Your task to perform on an android device: Open the calendar app, open the side menu, and click the "Day" option Image 0: 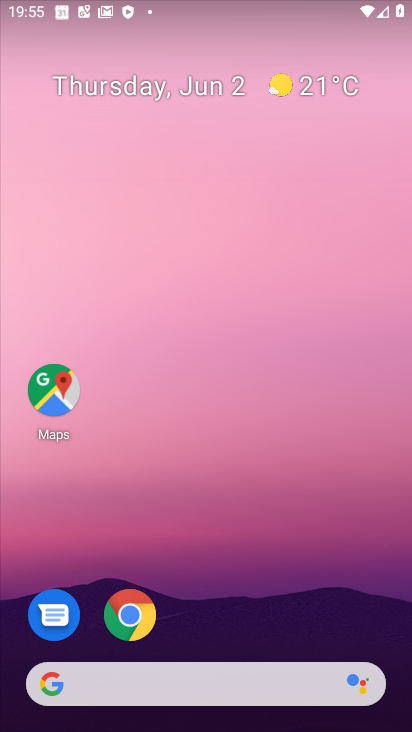
Step 0: drag from (277, 625) to (298, 202)
Your task to perform on an android device: Open the calendar app, open the side menu, and click the "Day" option Image 1: 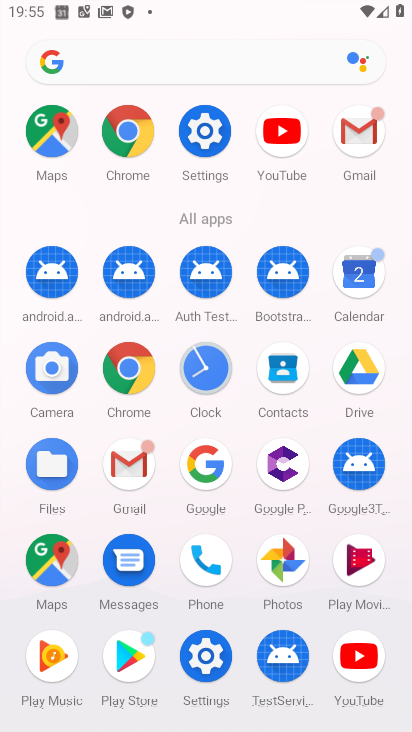
Step 1: click (222, 136)
Your task to perform on an android device: Open the calendar app, open the side menu, and click the "Day" option Image 2: 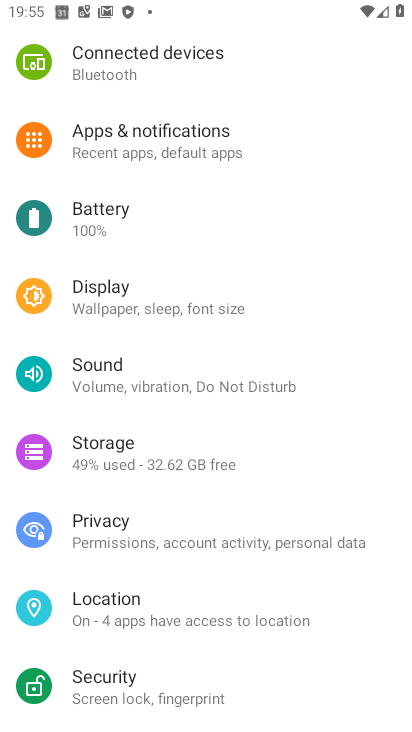
Step 2: press home button
Your task to perform on an android device: Open the calendar app, open the side menu, and click the "Day" option Image 3: 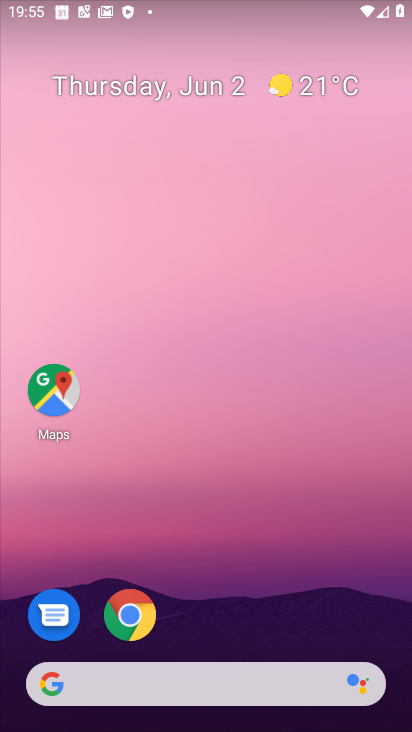
Step 3: drag from (292, 620) to (289, 240)
Your task to perform on an android device: Open the calendar app, open the side menu, and click the "Day" option Image 4: 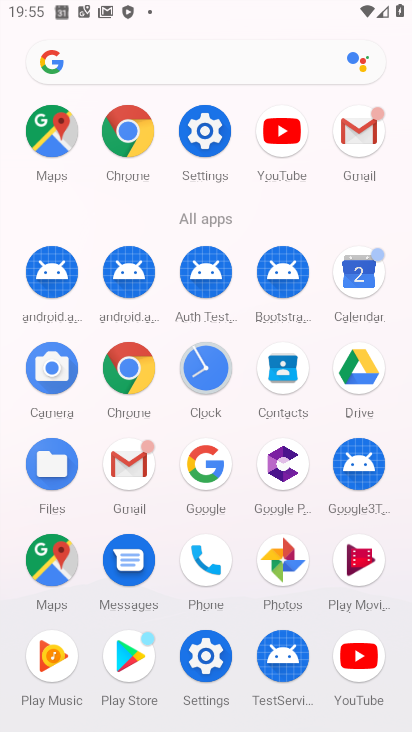
Step 4: click (220, 166)
Your task to perform on an android device: Open the calendar app, open the side menu, and click the "Day" option Image 5: 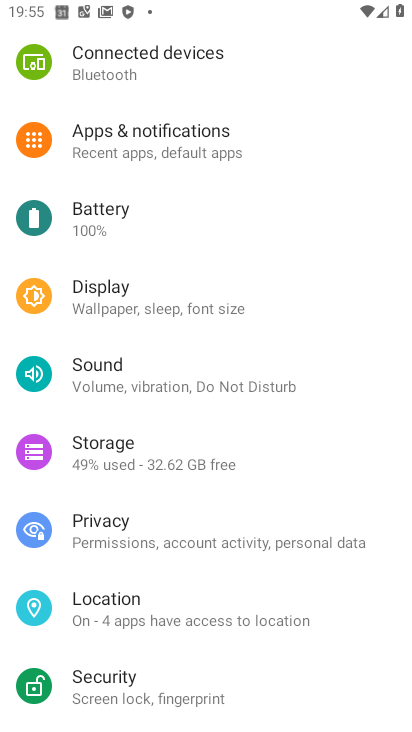
Step 5: press home button
Your task to perform on an android device: Open the calendar app, open the side menu, and click the "Day" option Image 6: 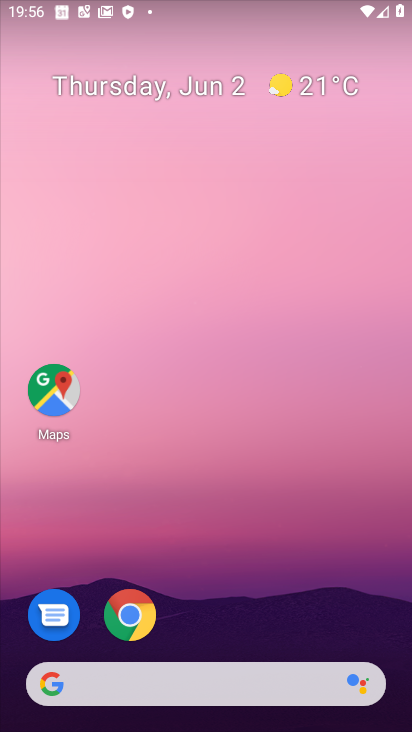
Step 6: drag from (248, 585) to (298, 168)
Your task to perform on an android device: Open the calendar app, open the side menu, and click the "Day" option Image 7: 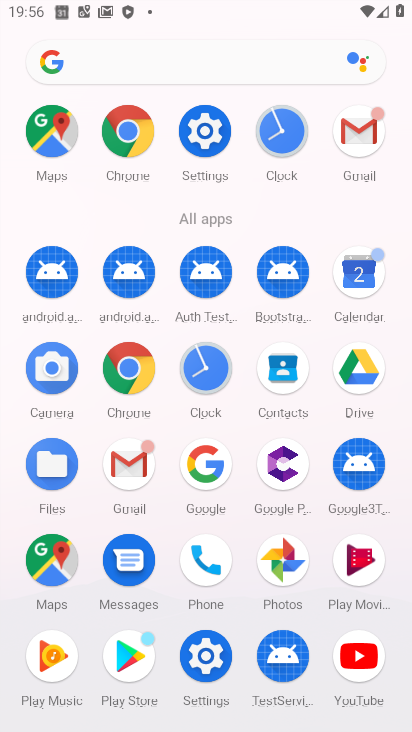
Step 7: click (375, 283)
Your task to perform on an android device: Open the calendar app, open the side menu, and click the "Day" option Image 8: 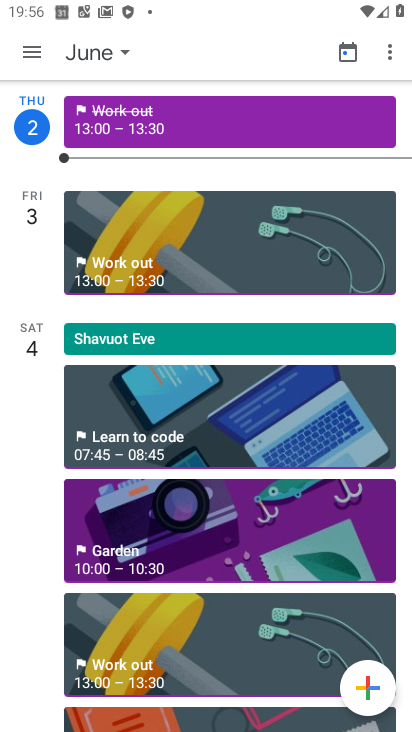
Step 8: click (30, 56)
Your task to perform on an android device: Open the calendar app, open the side menu, and click the "Day" option Image 9: 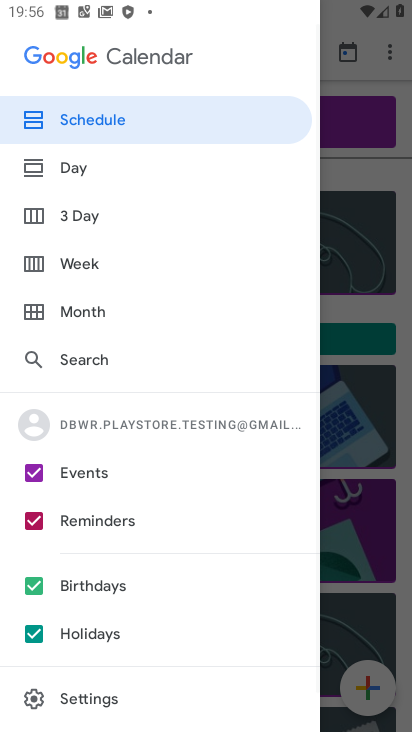
Step 9: click (63, 176)
Your task to perform on an android device: Open the calendar app, open the side menu, and click the "Day" option Image 10: 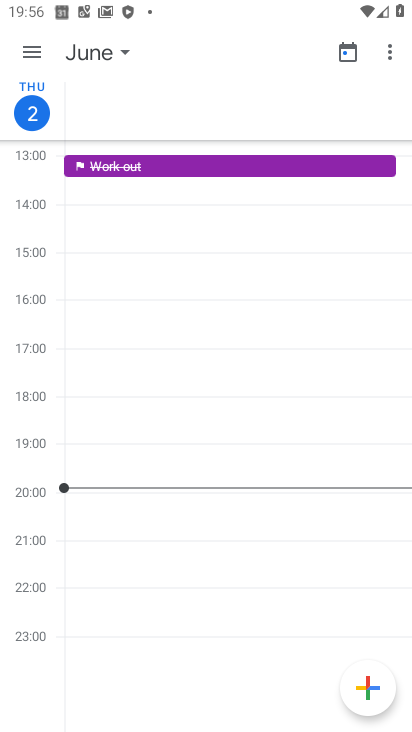
Step 10: task complete